Your task to perform on an android device: open a bookmark in the chrome app Image 0: 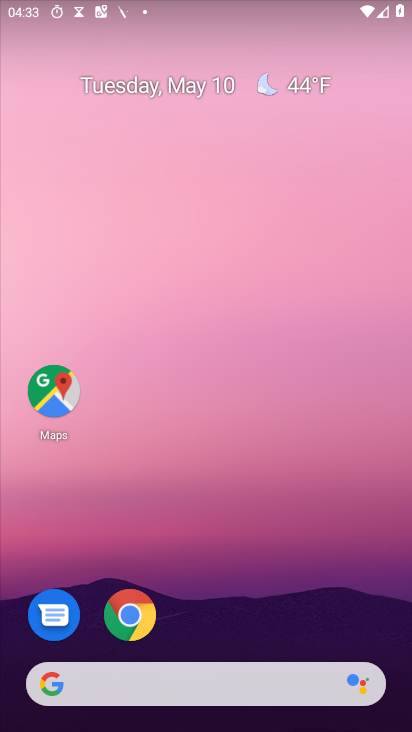
Step 0: drag from (279, 645) to (296, 44)
Your task to perform on an android device: open a bookmark in the chrome app Image 1: 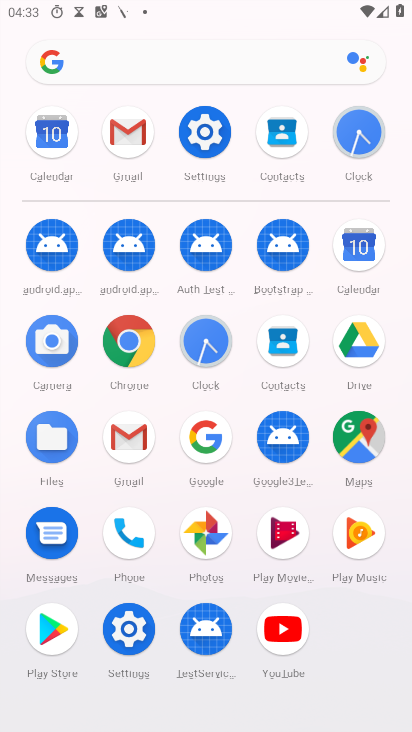
Step 1: click (133, 344)
Your task to perform on an android device: open a bookmark in the chrome app Image 2: 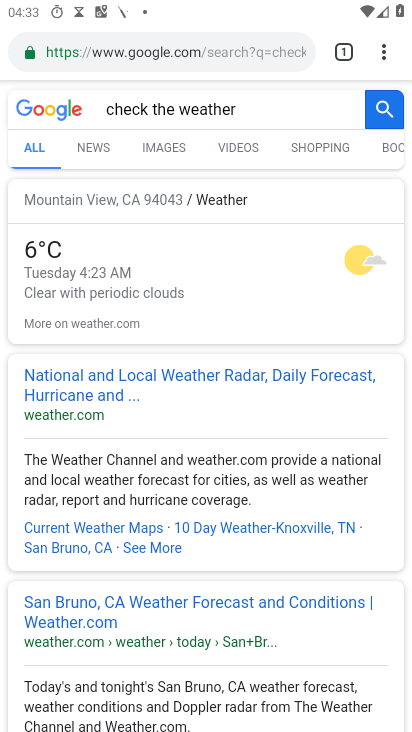
Step 2: click (381, 50)
Your task to perform on an android device: open a bookmark in the chrome app Image 3: 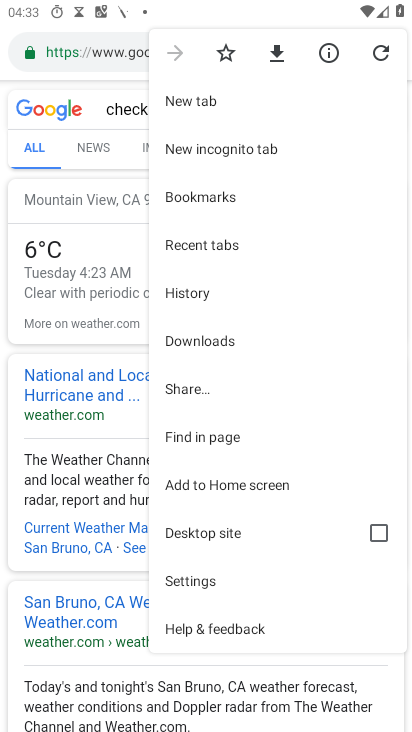
Step 3: click (260, 193)
Your task to perform on an android device: open a bookmark in the chrome app Image 4: 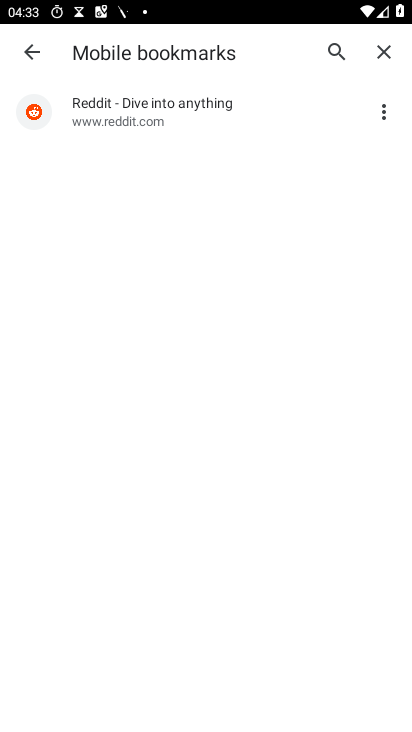
Step 4: task complete